Your task to perform on an android device: turn off location history Image 0: 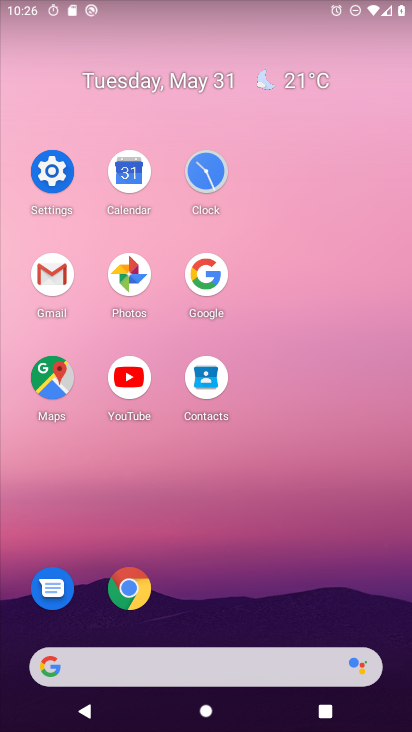
Step 0: click (69, 182)
Your task to perform on an android device: turn off location history Image 1: 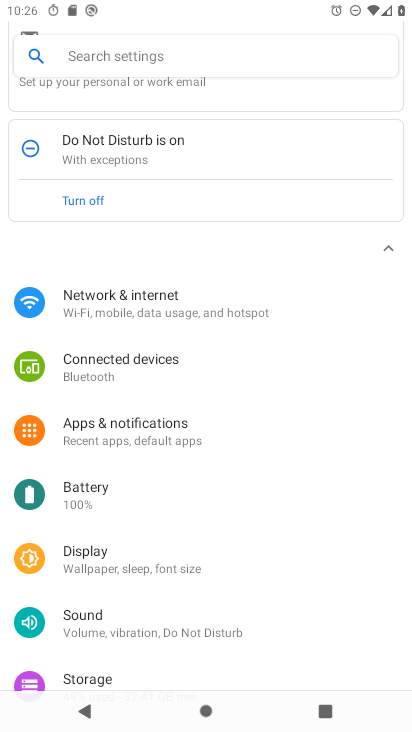
Step 1: drag from (223, 561) to (232, 251)
Your task to perform on an android device: turn off location history Image 2: 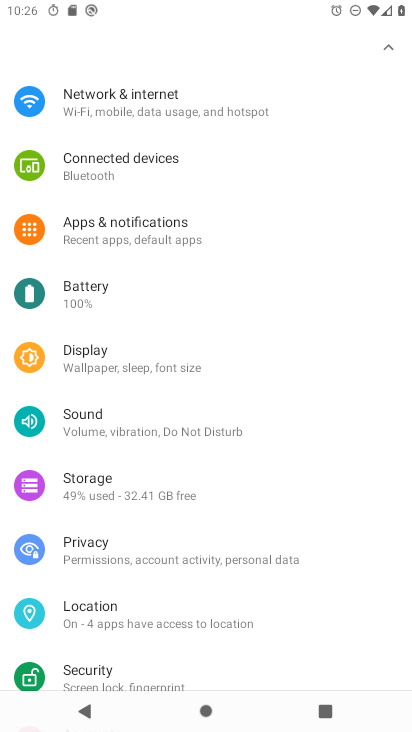
Step 2: click (215, 623)
Your task to perform on an android device: turn off location history Image 3: 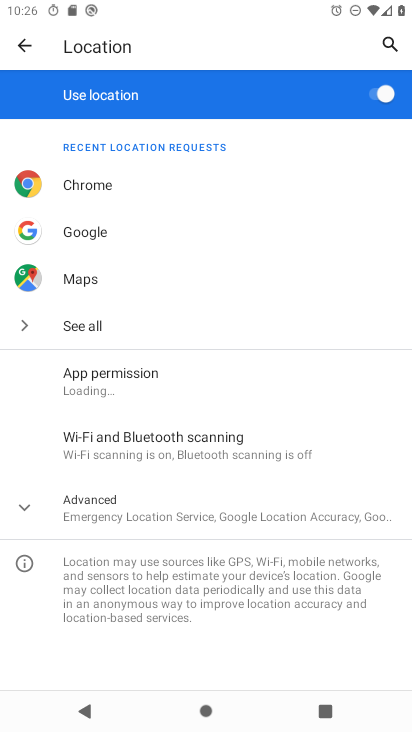
Step 3: click (134, 522)
Your task to perform on an android device: turn off location history Image 4: 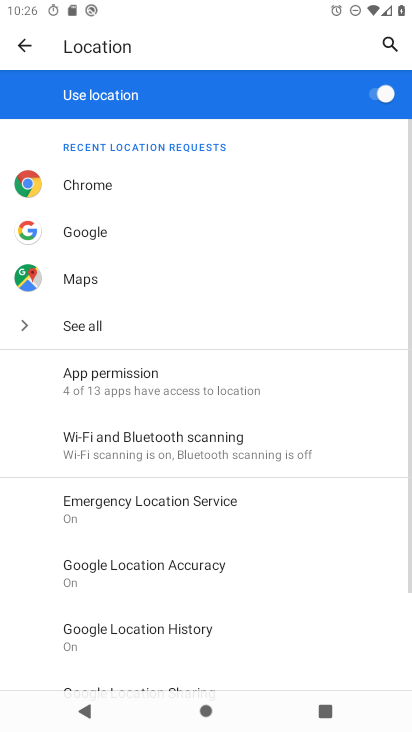
Step 4: click (178, 622)
Your task to perform on an android device: turn off location history Image 5: 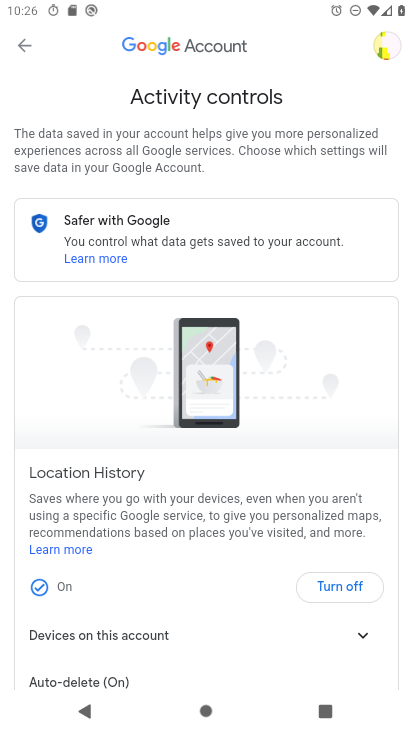
Step 5: click (364, 592)
Your task to perform on an android device: turn off location history Image 6: 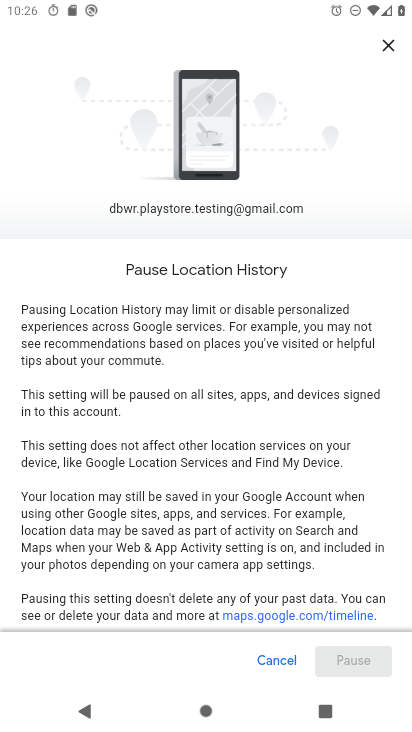
Step 6: drag from (372, 614) to (320, 140)
Your task to perform on an android device: turn off location history Image 7: 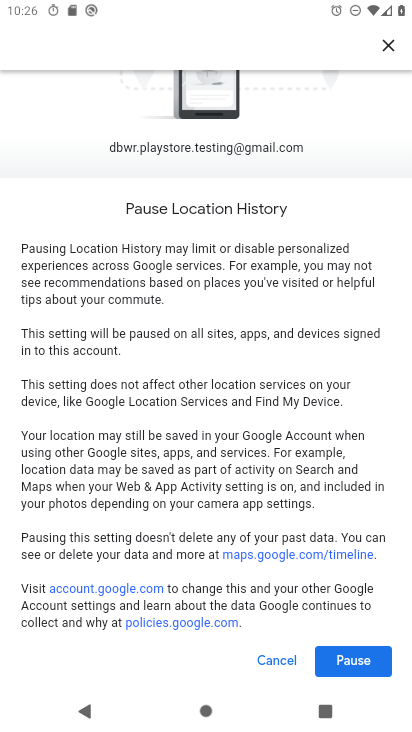
Step 7: click (366, 678)
Your task to perform on an android device: turn off location history Image 8: 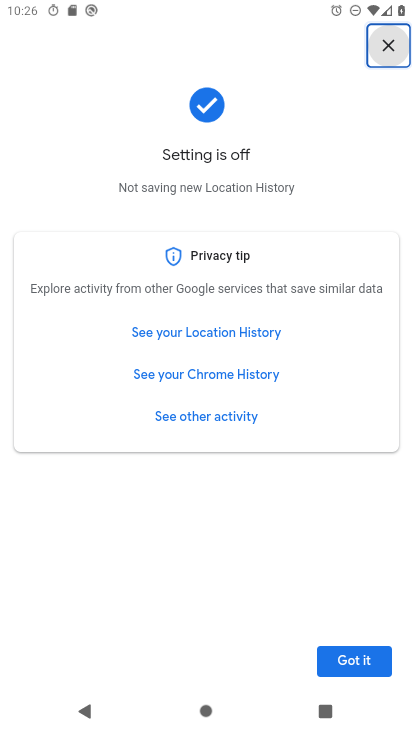
Step 8: click (334, 652)
Your task to perform on an android device: turn off location history Image 9: 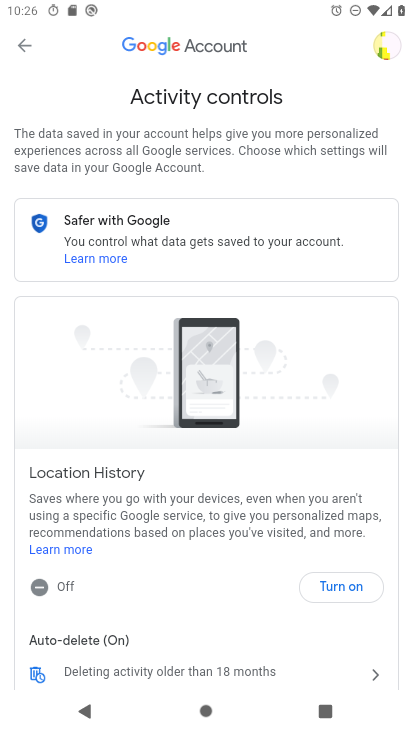
Step 9: task complete